Your task to perform on an android device: What is the recent news? Image 0: 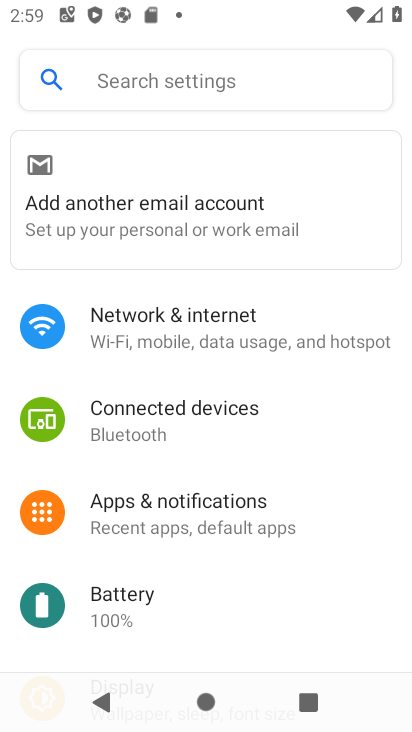
Step 0: press home button
Your task to perform on an android device: What is the recent news? Image 1: 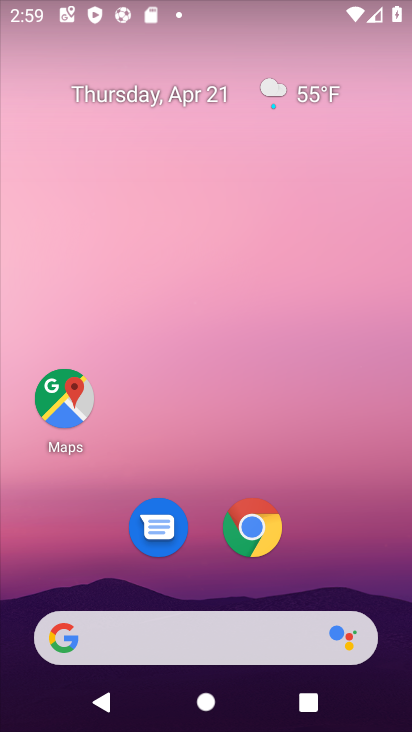
Step 1: click (254, 517)
Your task to perform on an android device: What is the recent news? Image 2: 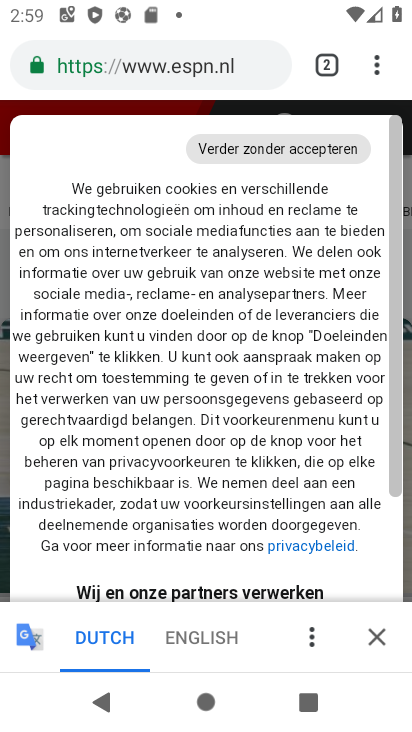
Step 2: click (222, 67)
Your task to perform on an android device: What is the recent news? Image 3: 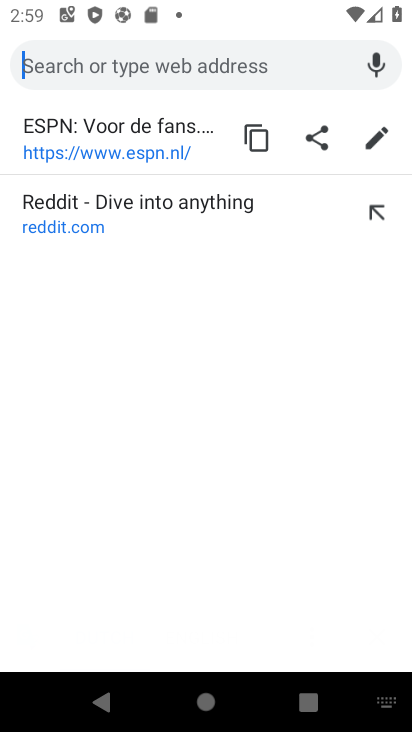
Step 3: type "recent news"
Your task to perform on an android device: What is the recent news? Image 4: 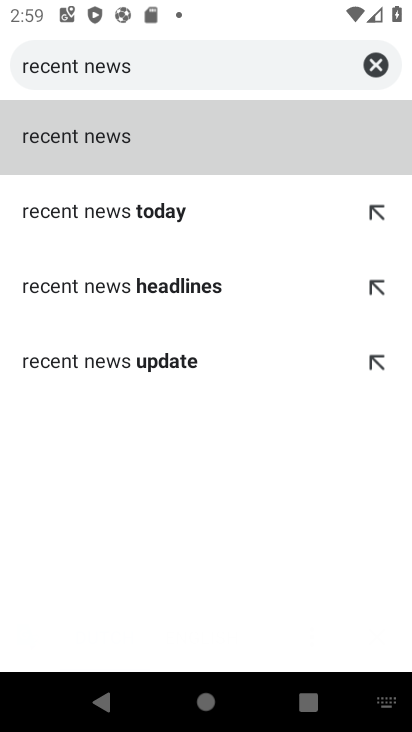
Step 4: click (115, 143)
Your task to perform on an android device: What is the recent news? Image 5: 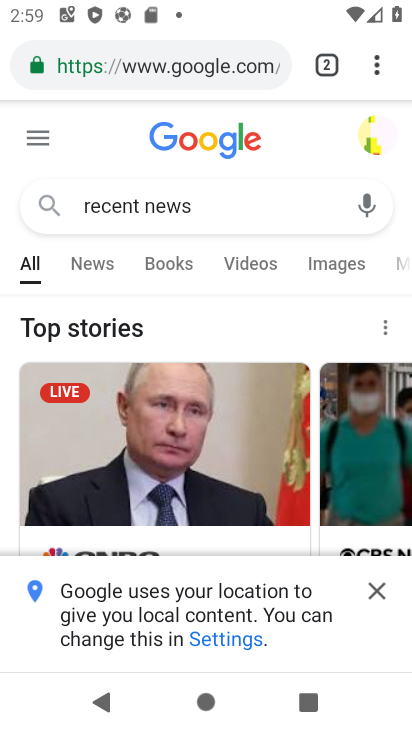
Step 5: task complete